Your task to perform on an android device: open device folders in google photos Image 0: 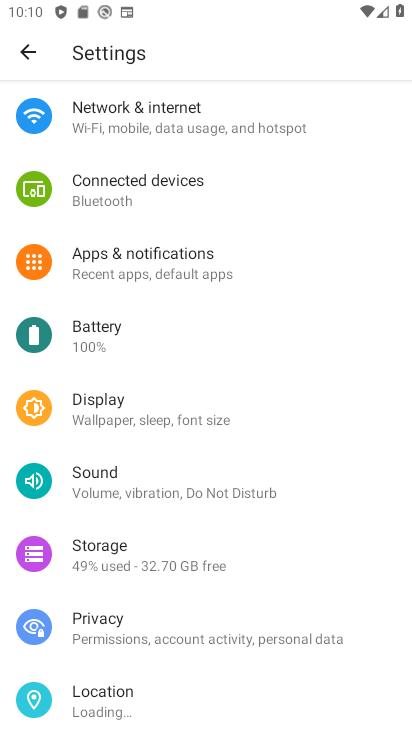
Step 0: press home button
Your task to perform on an android device: open device folders in google photos Image 1: 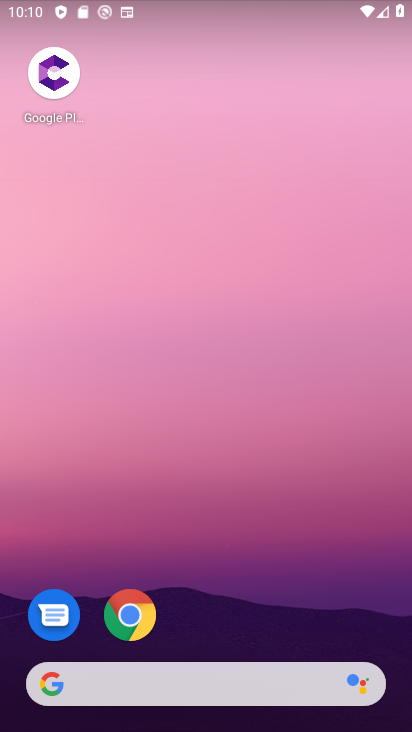
Step 1: drag from (255, 653) to (219, 43)
Your task to perform on an android device: open device folders in google photos Image 2: 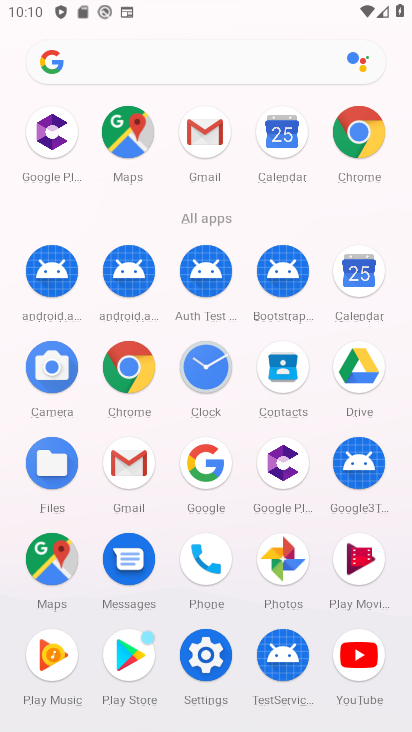
Step 2: click (286, 566)
Your task to perform on an android device: open device folders in google photos Image 3: 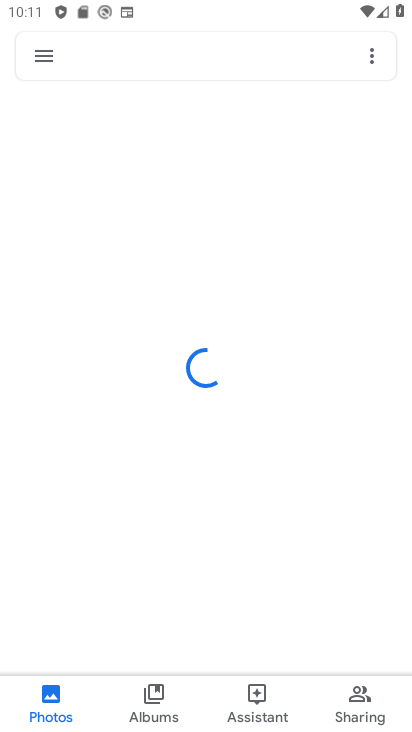
Step 3: click (53, 56)
Your task to perform on an android device: open device folders in google photos Image 4: 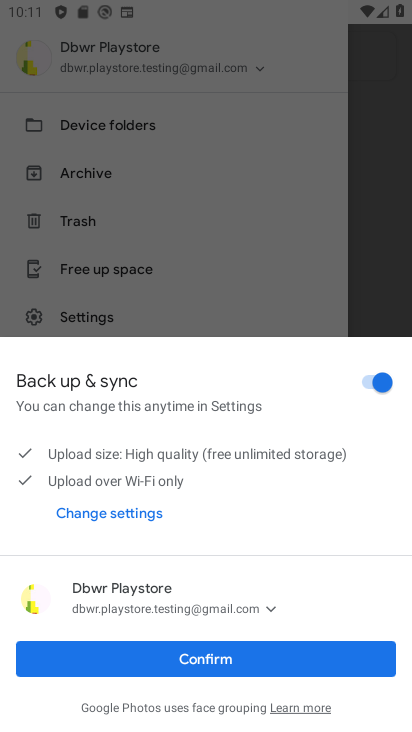
Step 4: click (206, 652)
Your task to perform on an android device: open device folders in google photos Image 5: 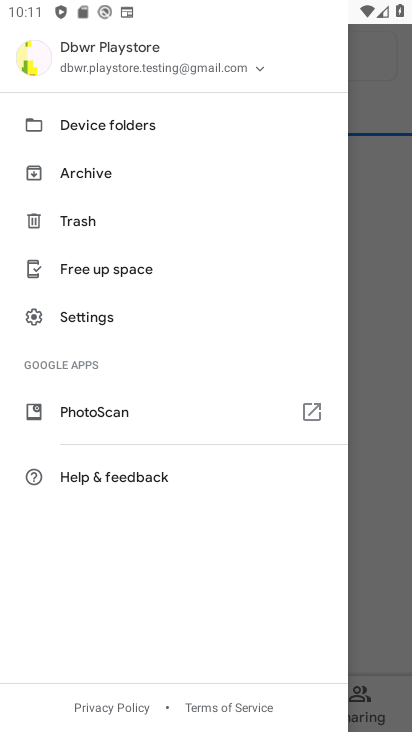
Step 5: click (120, 132)
Your task to perform on an android device: open device folders in google photos Image 6: 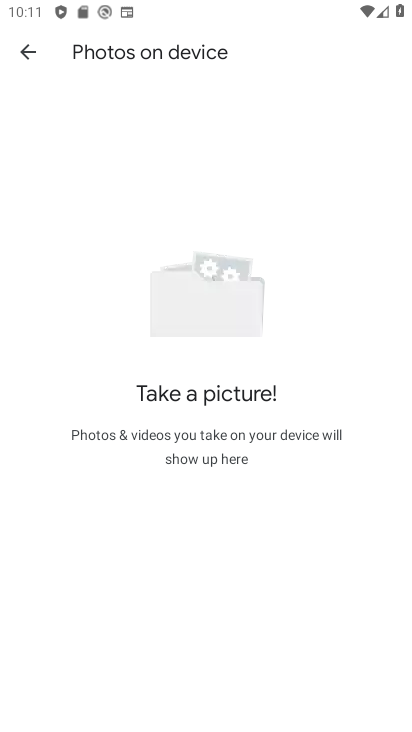
Step 6: task complete